Your task to perform on an android device: toggle javascript in the chrome app Image 0: 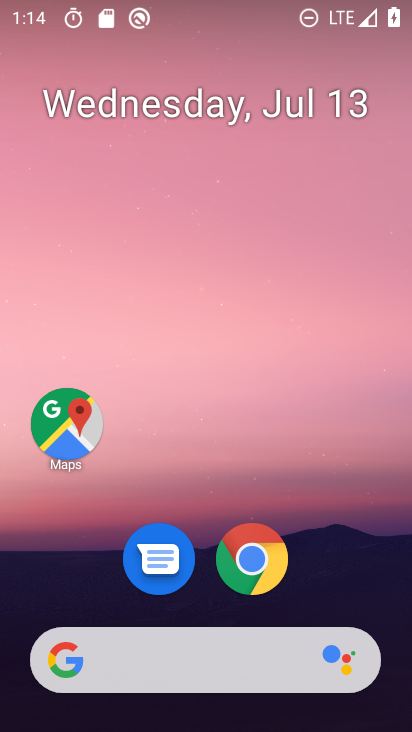
Step 0: drag from (285, 662) to (327, 236)
Your task to perform on an android device: toggle javascript in the chrome app Image 1: 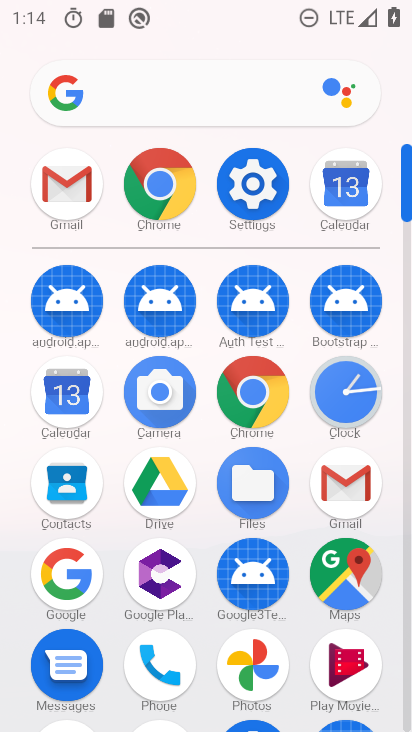
Step 1: drag from (202, 594) to (238, 371)
Your task to perform on an android device: toggle javascript in the chrome app Image 2: 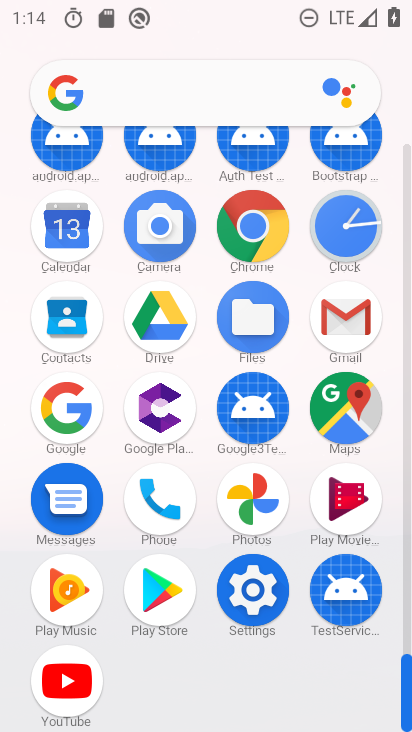
Step 2: click (257, 245)
Your task to perform on an android device: toggle javascript in the chrome app Image 3: 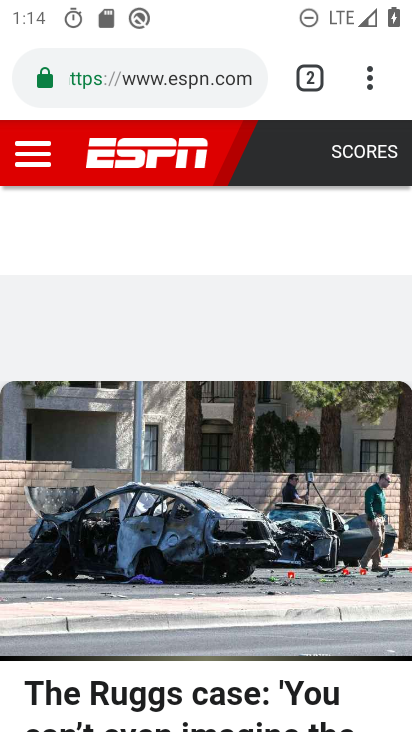
Step 3: click (367, 93)
Your task to perform on an android device: toggle javascript in the chrome app Image 4: 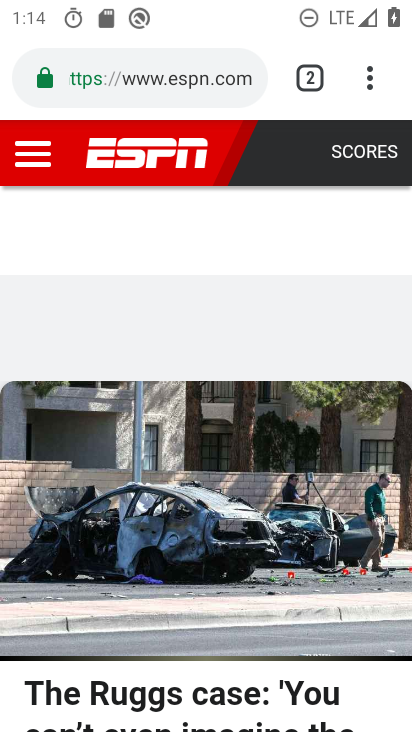
Step 4: click (376, 84)
Your task to perform on an android device: toggle javascript in the chrome app Image 5: 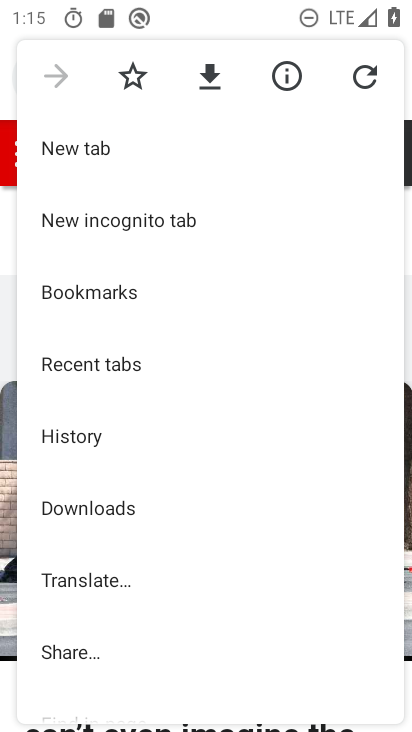
Step 5: drag from (103, 696) to (143, 523)
Your task to perform on an android device: toggle javascript in the chrome app Image 6: 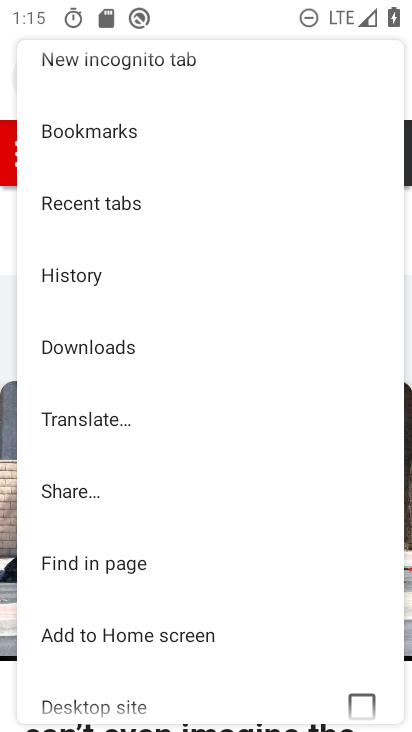
Step 6: drag from (128, 645) to (169, 505)
Your task to perform on an android device: toggle javascript in the chrome app Image 7: 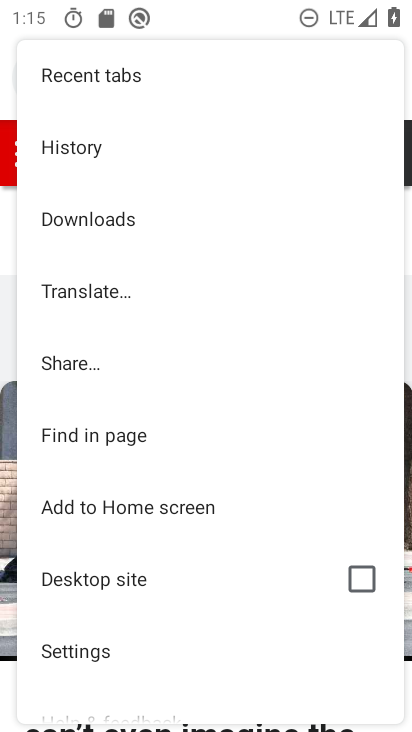
Step 7: click (91, 652)
Your task to perform on an android device: toggle javascript in the chrome app Image 8: 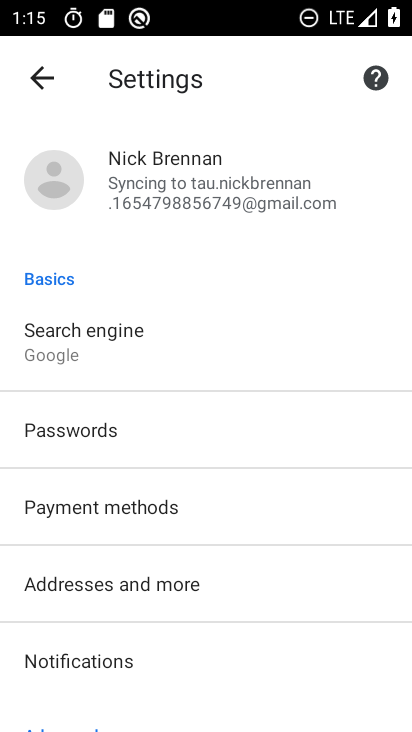
Step 8: drag from (152, 653) to (156, 370)
Your task to perform on an android device: toggle javascript in the chrome app Image 9: 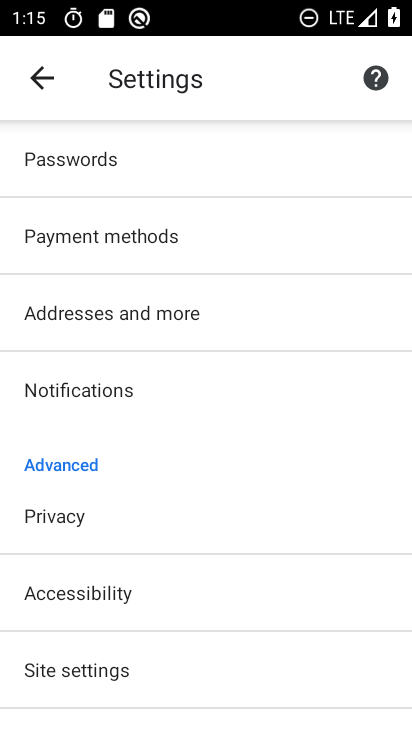
Step 9: click (112, 674)
Your task to perform on an android device: toggle javascript in the chrome app Image 10: 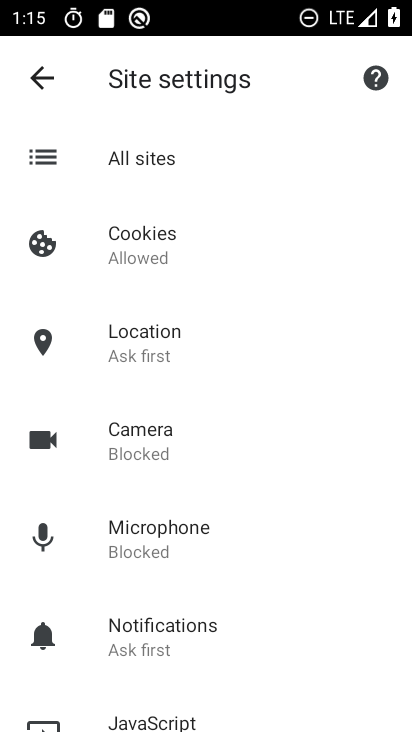
Step 10: drag from (157, 646) to (237, 344)
Your task to perform on an android device: toggle javascript in the chrome app Image 11: 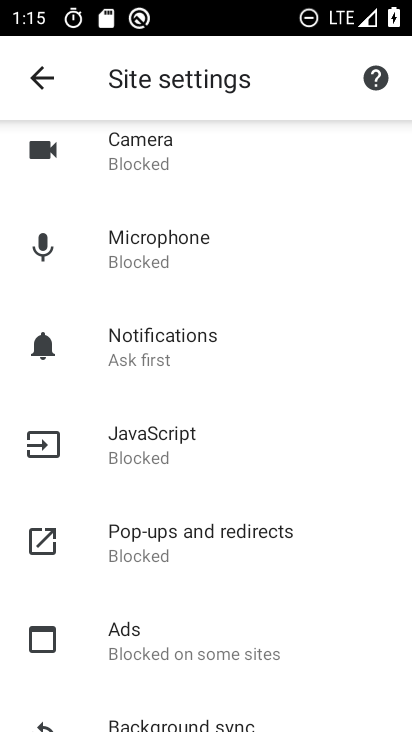
Step 11: click (195, 453)
Your task to perform on an android device: toggle javascript in the chrome app Image 12: 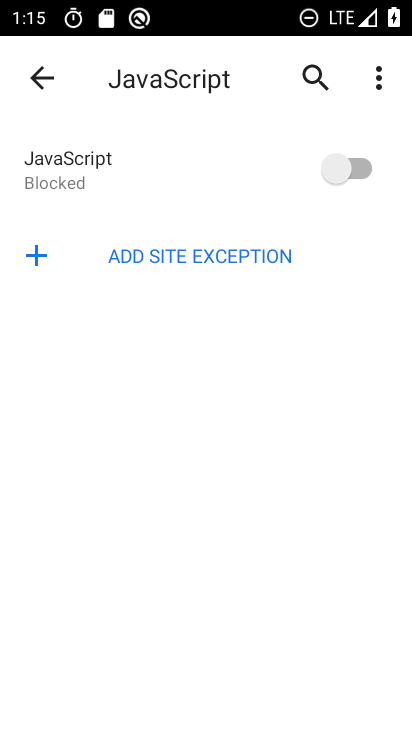
Step 12: click (364, 182)
Your task to perform on an android device: toggle javascript in the chrome app Image 13: 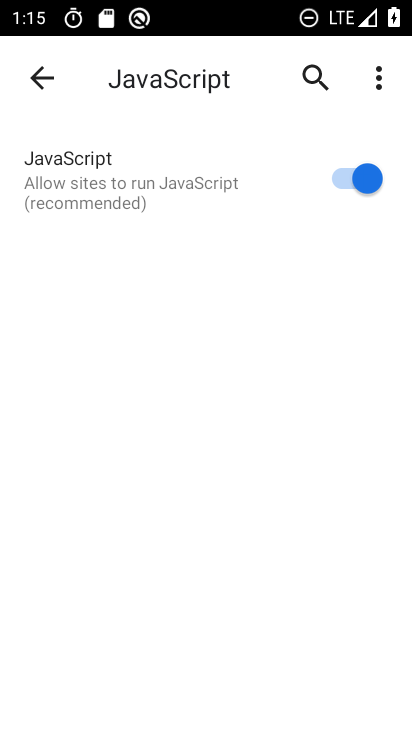
Step 13: task complete